Your task to perform on an android device: Open the calendar app, open the side menu, and click the "Day" option Image 0: 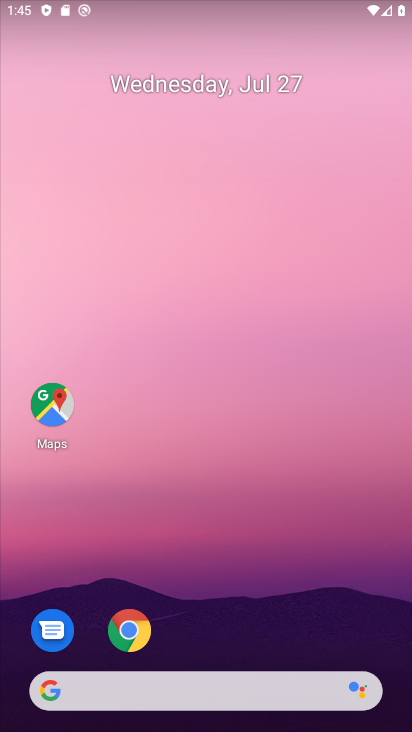
Step 0: drag from (273, 614) to (283, 15)
Your task to perform on an android device: Open the calendar app, open the side menu, and click the "Day" option Image 1: 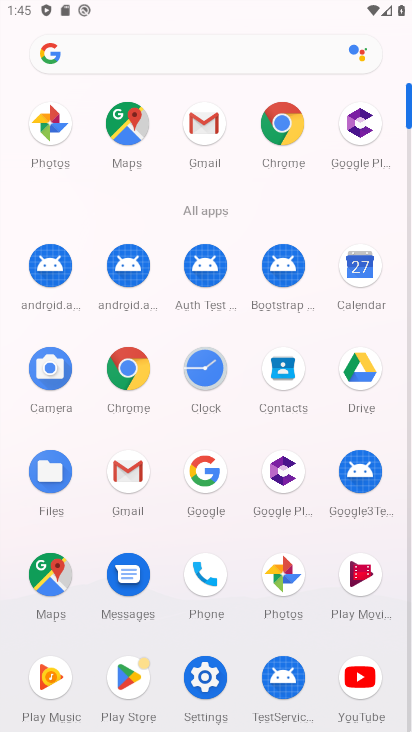
Step 1: click (356, 257)
Your task to perform on an android device: Open the calendar app, open the side menu, and click the "Day" option Image 2: 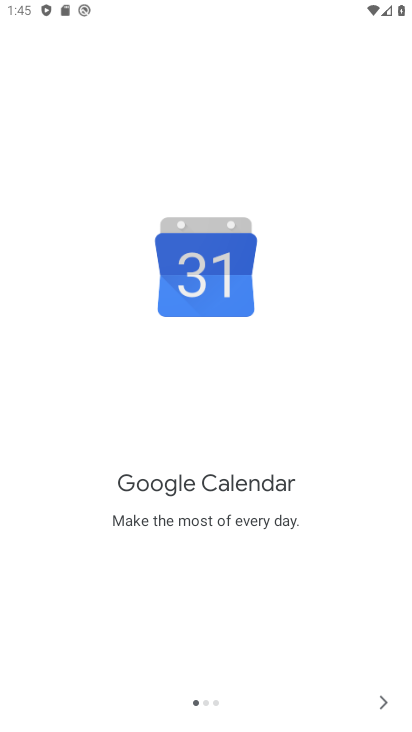
Step 2: click (378, 698)
Your task to perform on an android device: Open the calendar app, open the side menu, and click the "Day" option Image 3: 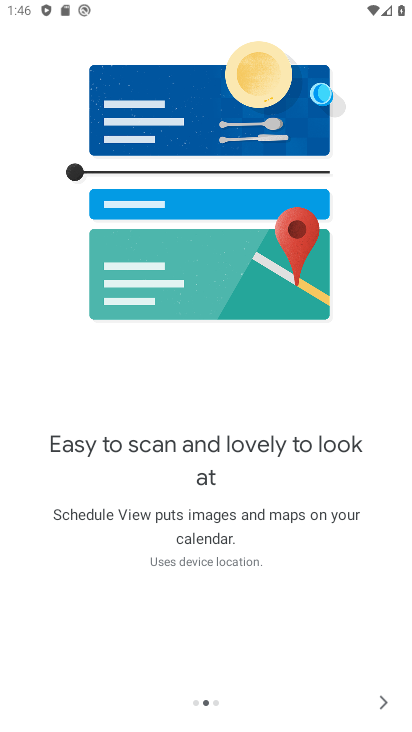
Step 3: click (382, 701)
Your task to perform on an android device: Open the calendar app, open the side menu, and click the "Day" option Image 4: 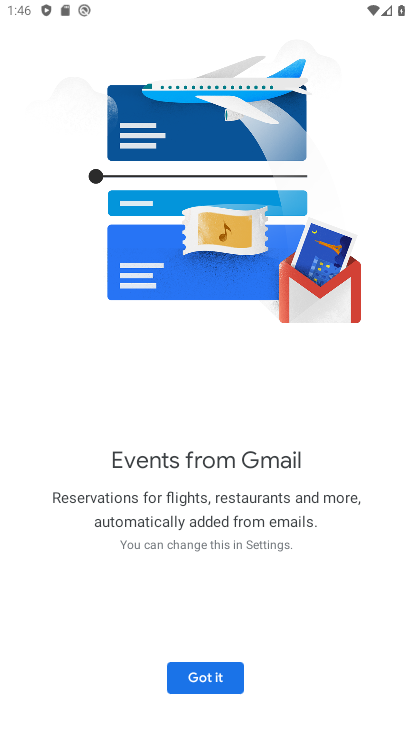
Step 4: click (224, 679)
Your task to perform on an android device: Open the calendar app, open the side menu, and click the "Day" option Image 5: 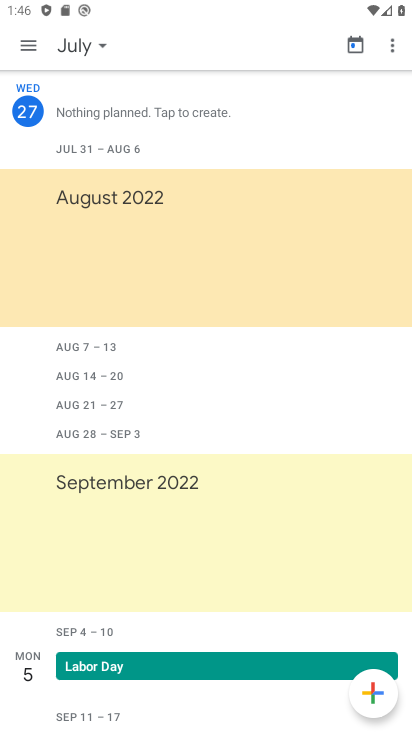
Step 5: click (27, 53)
Your task to perform on an android device: Open the calendar app, open the side menu, and click the "Day" option Image 6: 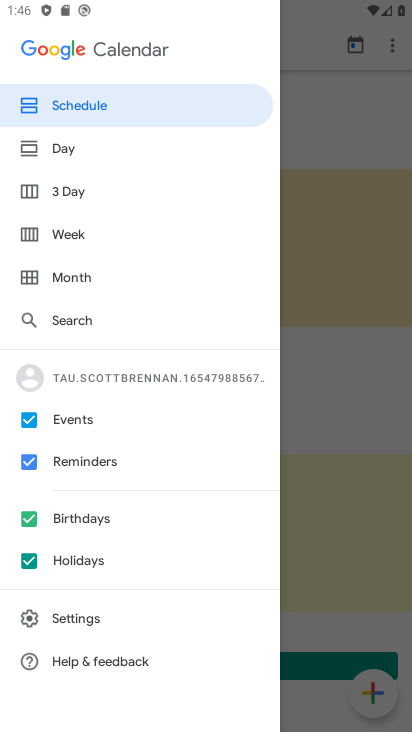
Step 6: click (67, 143)
Your task to perform on an android device: Open the calendar app, open the side menu, and click the "Day" option Image 7: 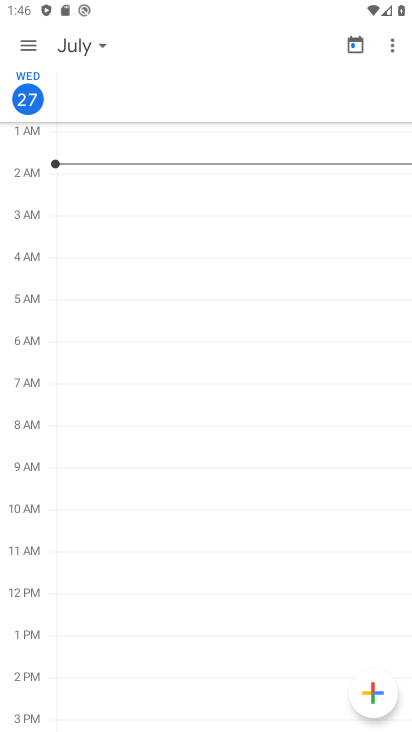
Step 7: task complete